Your task to perform on an android device: add a label to a message in the gmail app Image 0: 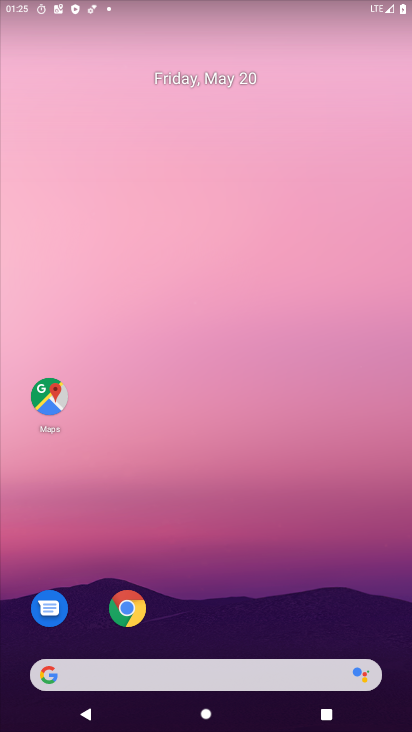
Step 0: drag from (358, 615) to (251, 46)
Your task to perform on an android device: add a label to a message in the gmail app Image 1: 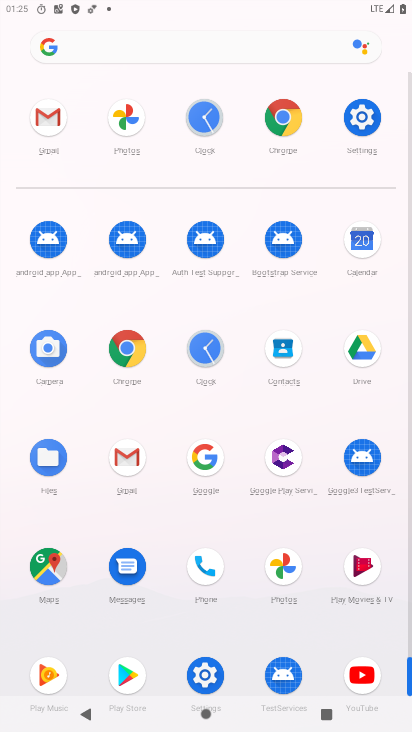
Step 1: click (129, 471)
Your task to perform on an android device: add a label to a message in the gmail app Image 2: 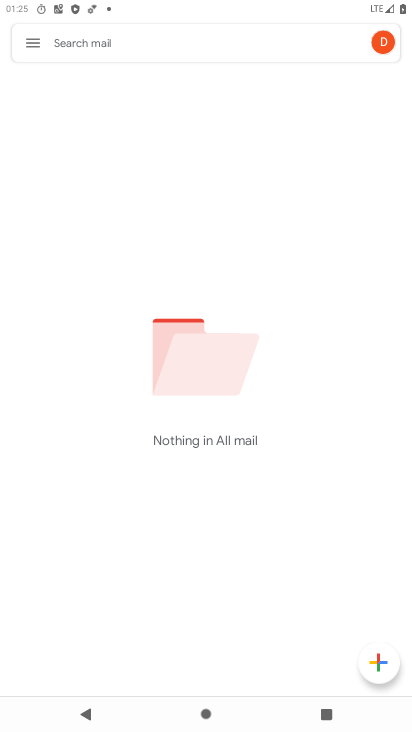
Step 2: task complete